Your task to perform on an android device: open chrome and create a bookmark for the current page Image 0: 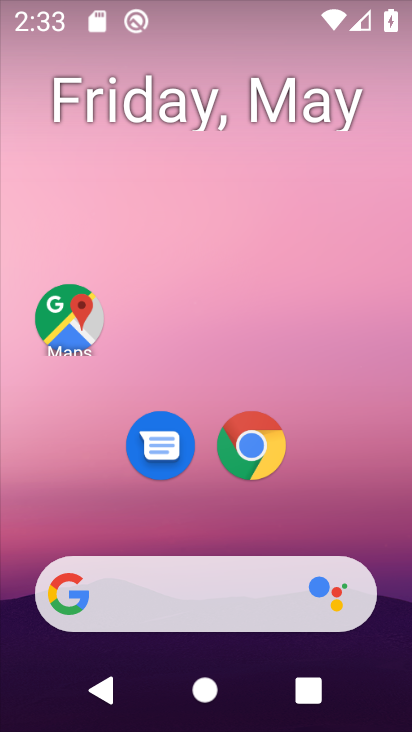
Step 0: drag from (208, 531) to (249, 216)
Your task to perform on an android device: open chrome and create a bookmark for the current page Image 1: 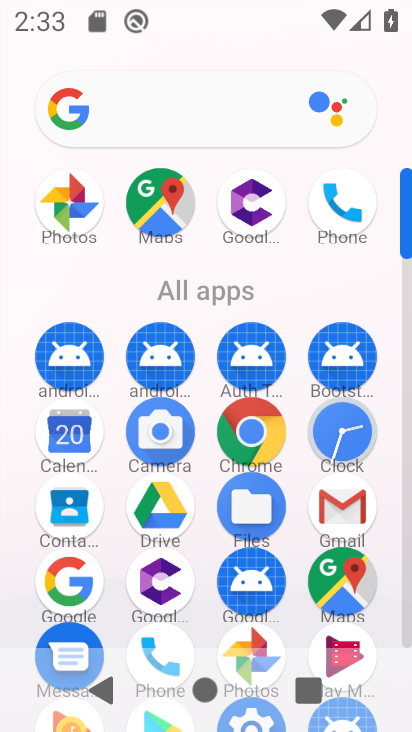
Step 1: click (262, 426)
Your task to perform on an android device: open chrome and create a bookmark for the current page Image 2: 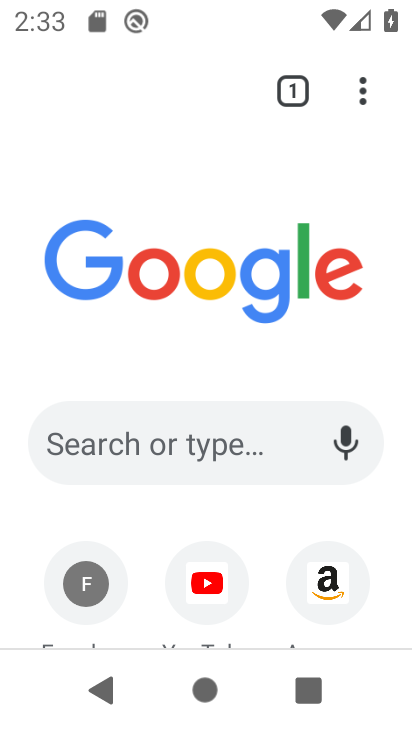
Step 2: click (359, 89)
Your task to perform on an android device: open chrome and create a bookmark for the current page Image 3: 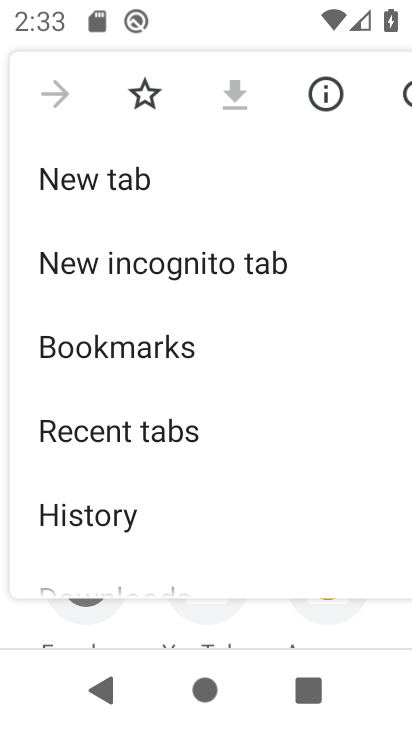
Step 3: click (135, 90)
Your task to perform on an android device: open chrome and create a bookmark for the current page Image 4: 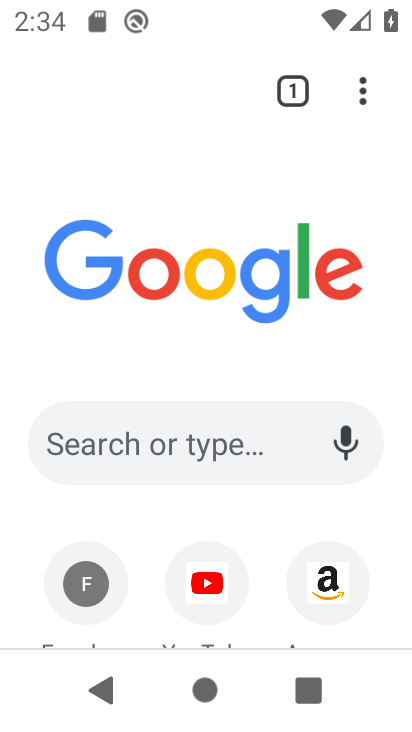
Step 4: task complete